Your task to perform on an android device: Open calendar and show me the third week of next month Image 0: 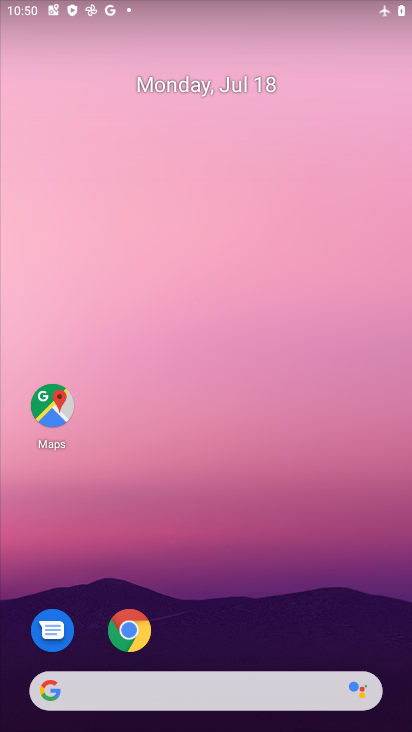
Step 0: drag from (395, 623) to (255, 113)
Your task to perform on an android device: Open calendar and show me the third week of next month Image 1: 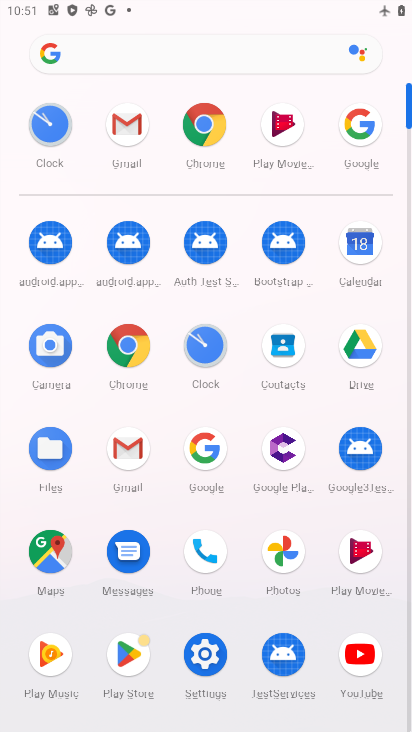
Step 1: click (358, 249)
Your task to perform on an android device: Open calendar and show me the third week of next month Image 2: 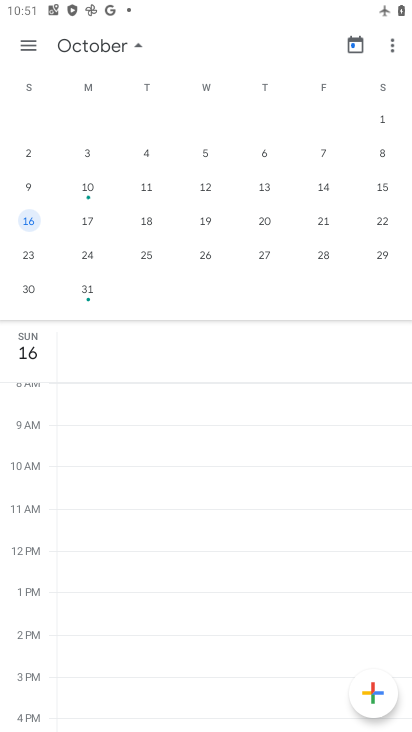
Step 2: drag from (370, 171) to (69, 215)
Your task to perform on an android device: Open calendar and show me the third week of next month Image 3: 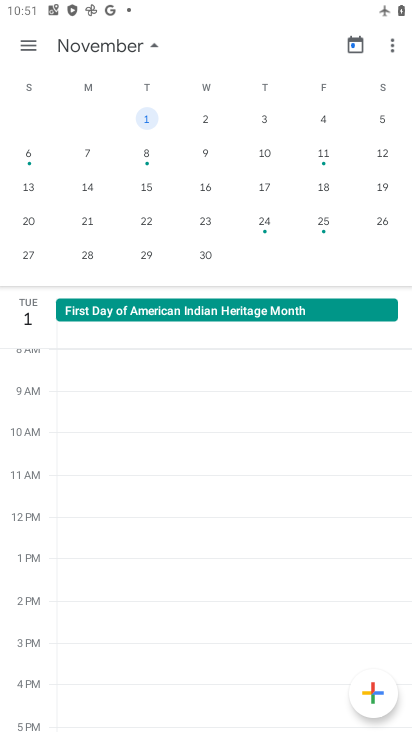
Step 3: click (25, 218)
Your task to perform on an android device: Open calendar and show me the third week of next month Image 4: 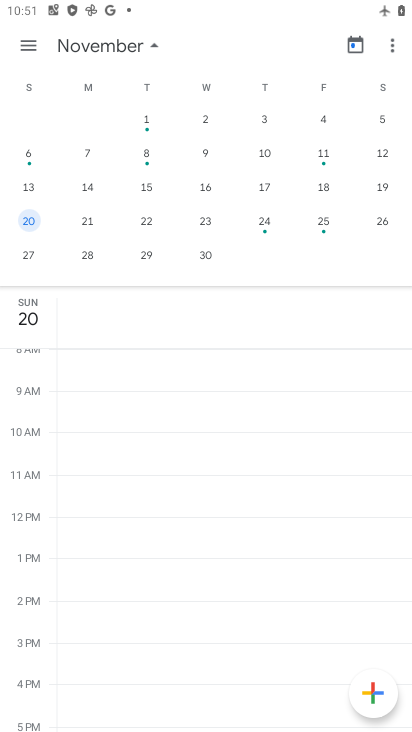
Step 4: task complete